Your task to perform on an android device: change your default location settings in chrome Image 0: 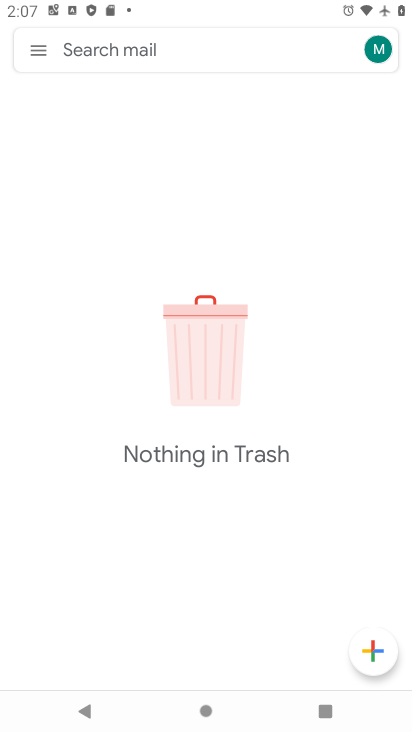
Step 0: press home button
Your task to perform on an android device: change your default location settings in chrome Image 1: 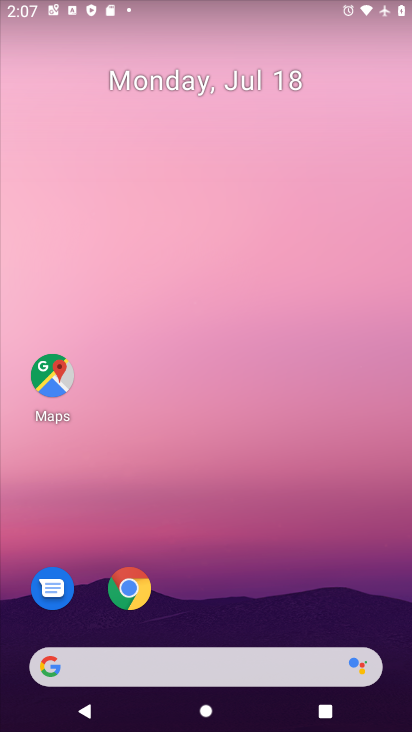
Step 1: drag from (219, 655) to (304, 221)
Your task to perform on an android device: change your default location settings in chrome Image 2: 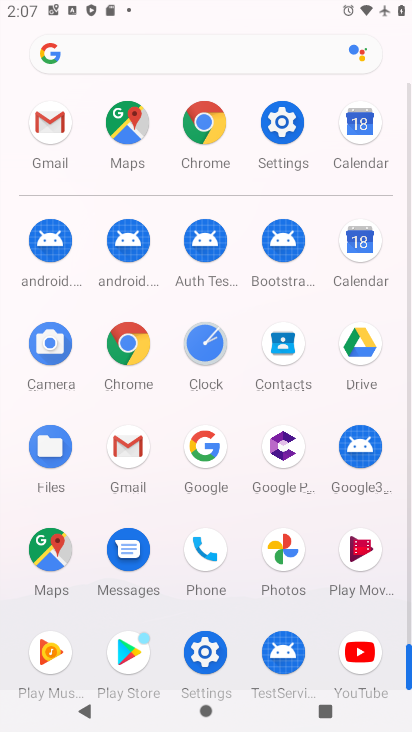
Step 2: click (207, 149)
Your task to perform on an android device: change your default location settings in chrome Image 3: 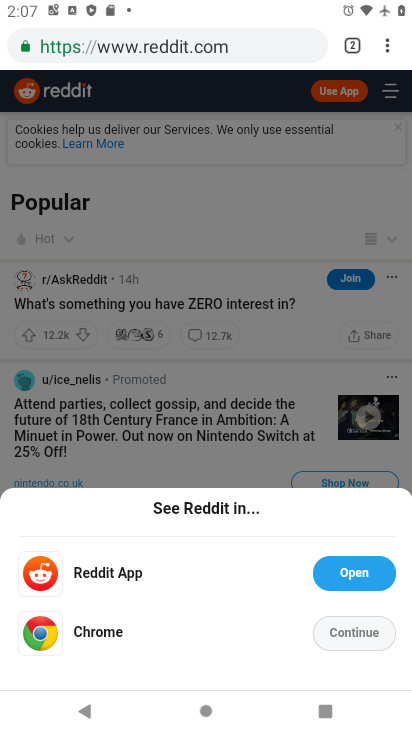
Step 3: click (386, 48)
Your task to perform on an android device: change your default location settings in chrome Image 4: 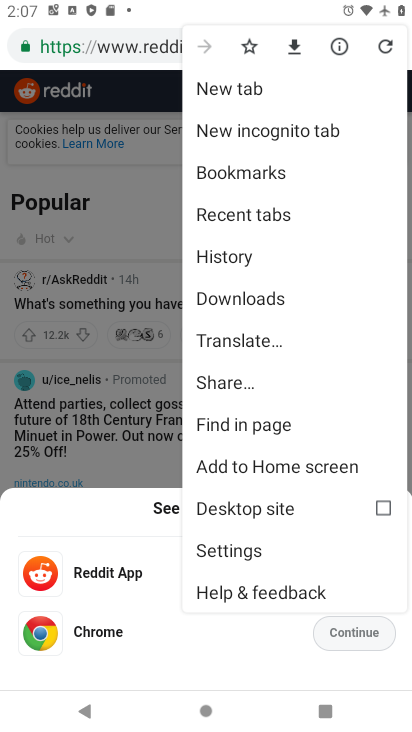
Step 4: click (263, 546)
Your task to perform on an android device: change your default location settings in chrome Image 5: 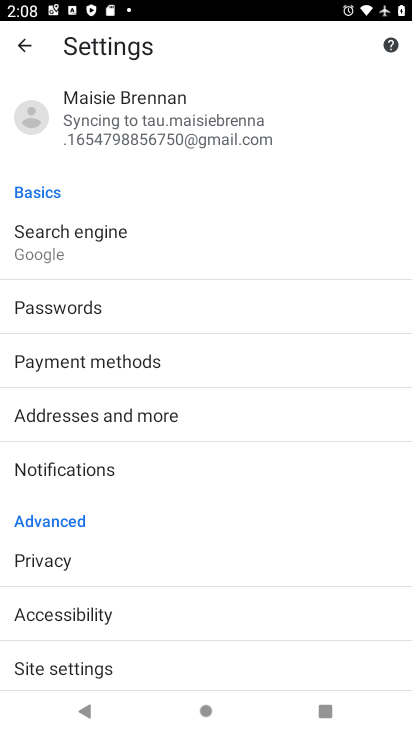
Step 5: click (86, 669)
Your task to perform on an android device: change your default location settings in chrome Image 6: 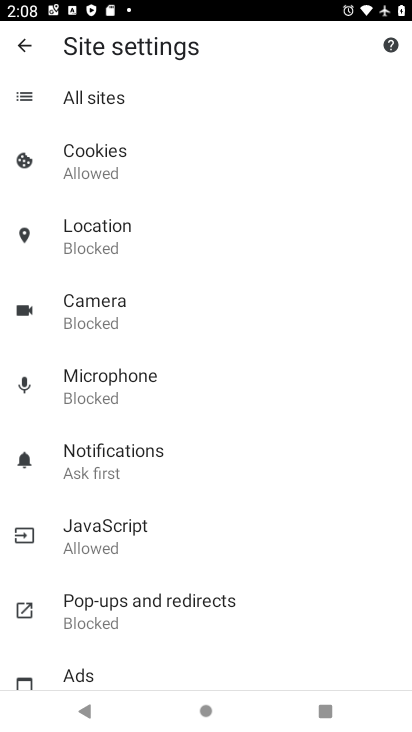
Step 6: drag from (187, 571) to (164, 372)
Your task to perform on an android device: change your default location settings in chrome Image 7: 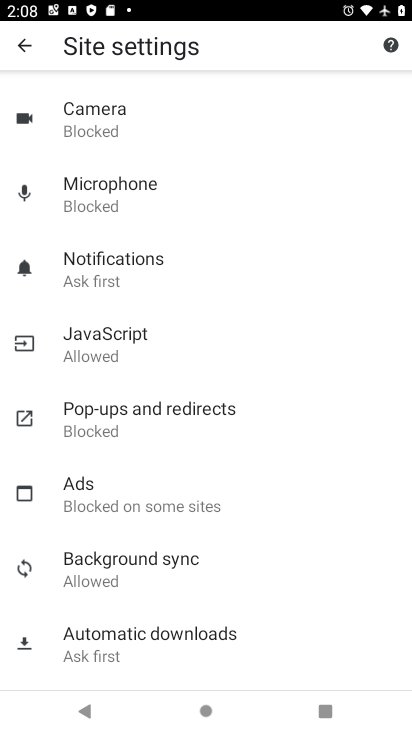
Step 7: drag from (121, 223) to (133, 474)
Your task to perform on an android device: change your default location settings in chrome Image 8: 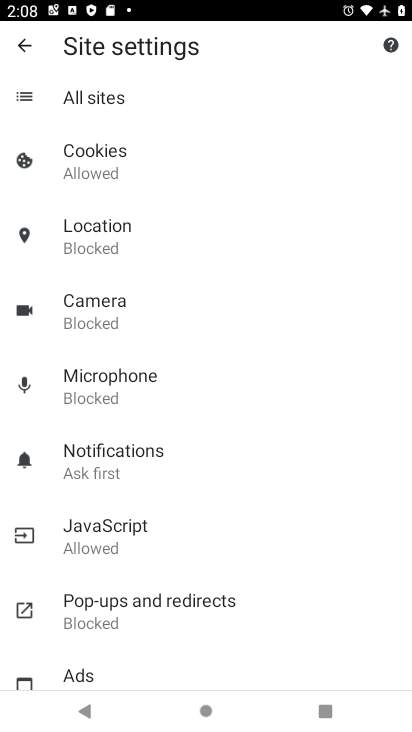
Step 8: click (136, 251)
Your task to perform on an android device: change your default location settings in chrome Image 9: 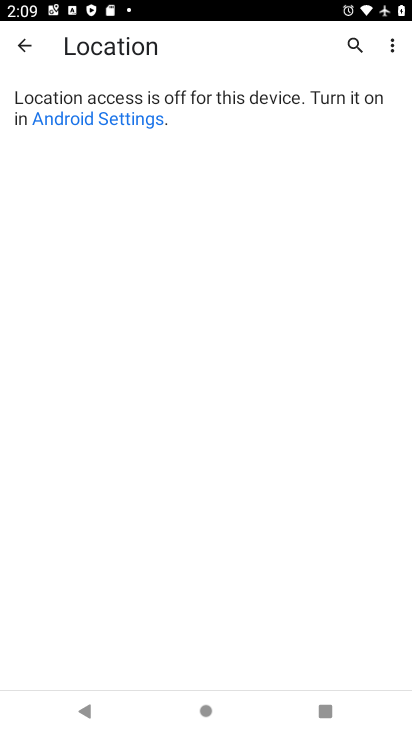
Step 9: task complete